Your task to perform on an android device: find which apps use the phone's location Image 0: 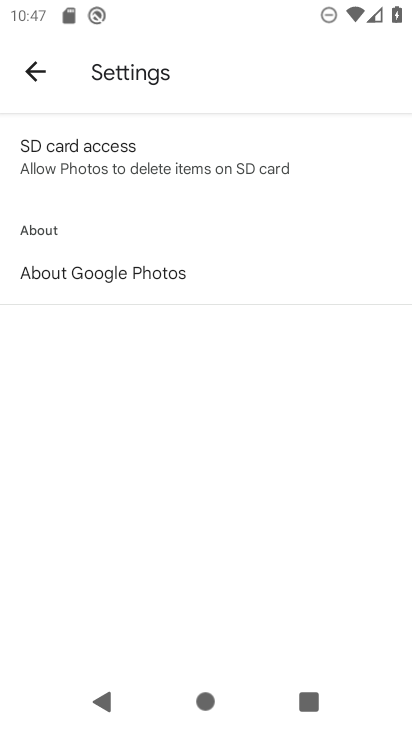
Step 0: press home button
Your task to perform on an android device: find which apps use the phone's location Image 1: 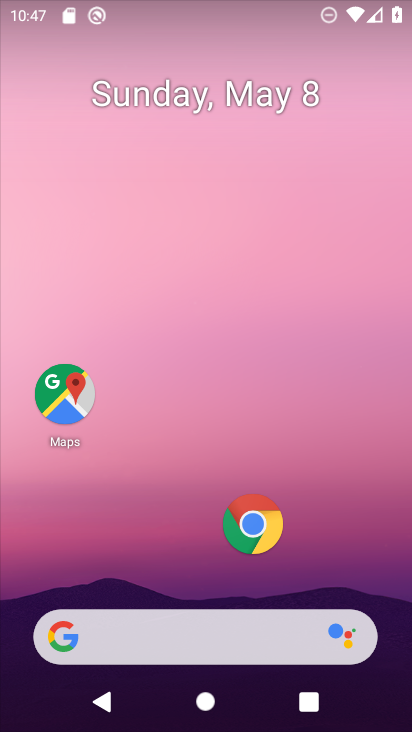
Step 1: drag from (156, 531) to (169, 81)
Your task to perform on an android device: find which apps use the phone's location Image 2: 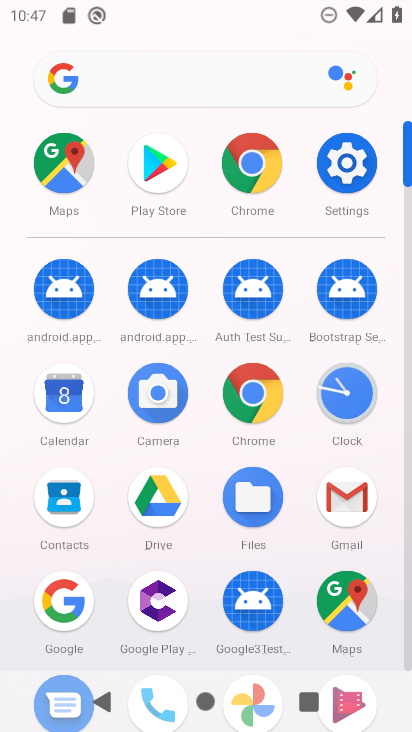
Step 2: click (335, 165)
Your task to perform on an android device: find which apps use the phone's location Image 3: 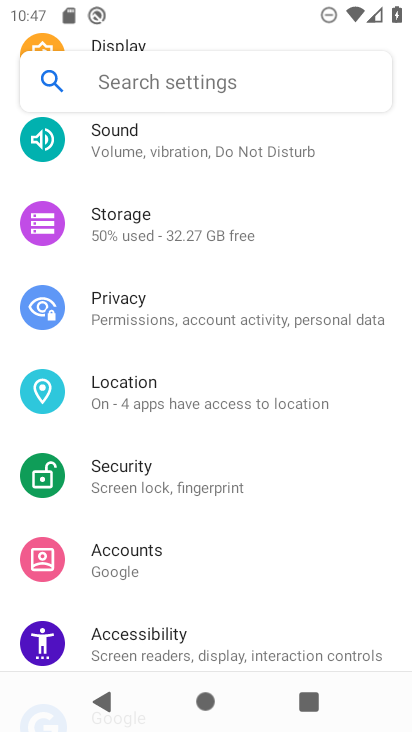
Step 3: click (244, 389)
Your task to perform on an android device: find which apps use the phone's location Image 4: 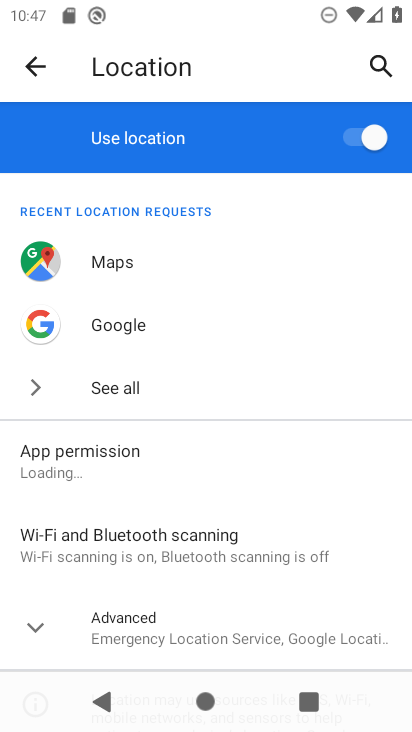
Step 4: click (117, 466)
Your task to perform on an android device: find which apps use the phone's location Image 5: 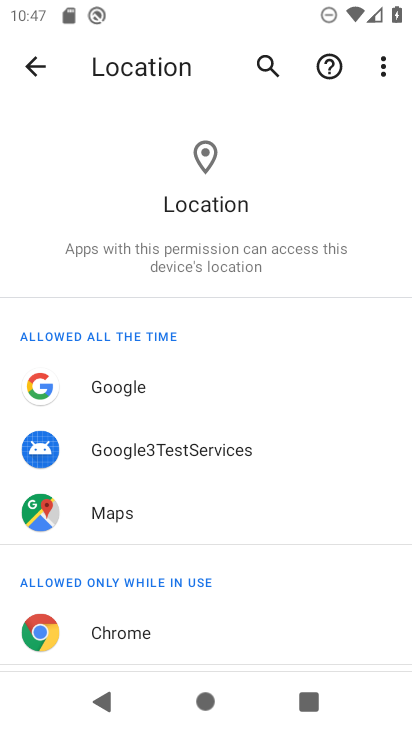
Step 5: task complete